Your task to perform on an android device: snooze an email in the gmail app Image 0: 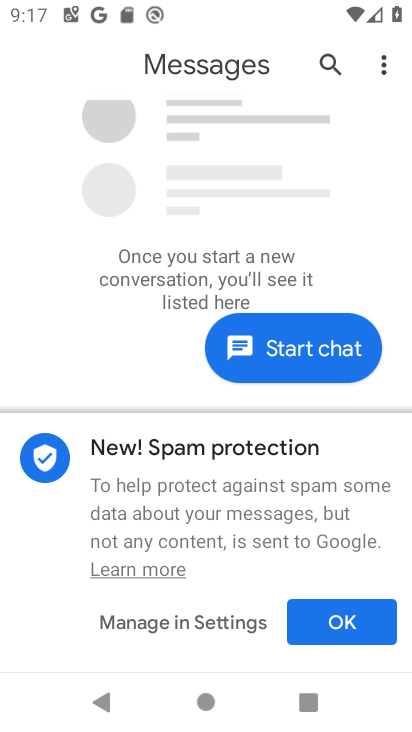
Step 0: press home button
Your task to perform on an android device: snooze an email in the gmail app Image 1: 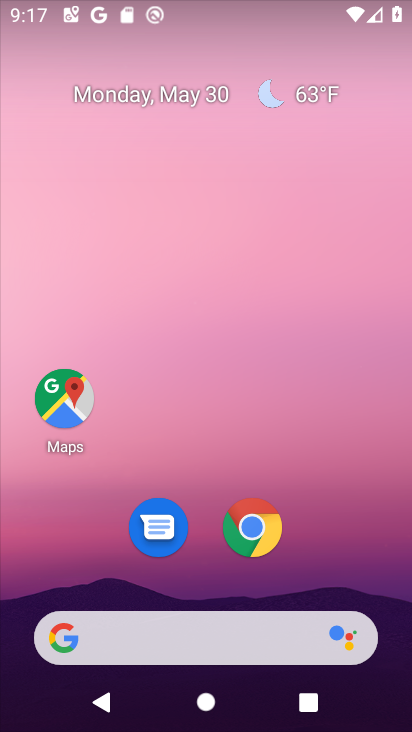
Step 1: drag from (292, 524) to (318, 241)
Your task to perform on an android device: snooze an email in the gmail app Image 2: 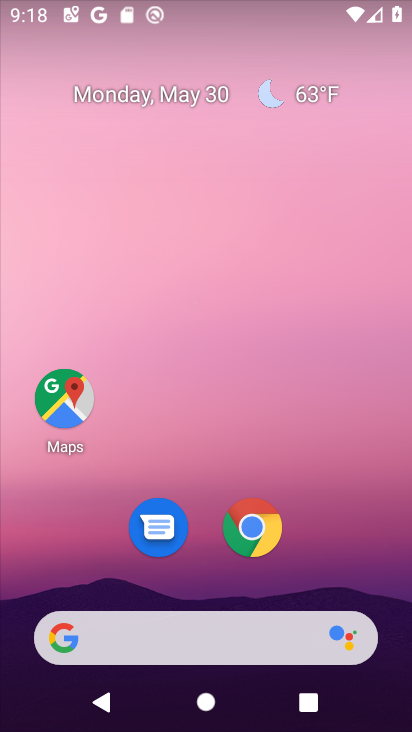
Step 2: drag from (285, 541) to (325, 261)
Your task to perform on an android device: snooze an email in the gmail app Image 3: 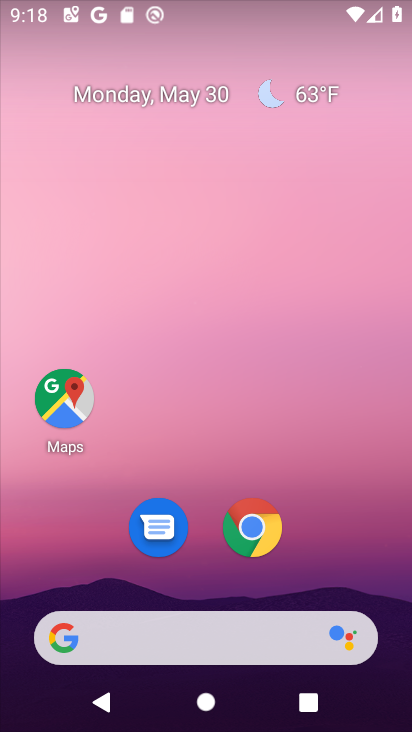
Step 3: drag from (285, 604) to (304, 284)
Your task to perform on an android device: snooze an email in the gmail app Image 4: 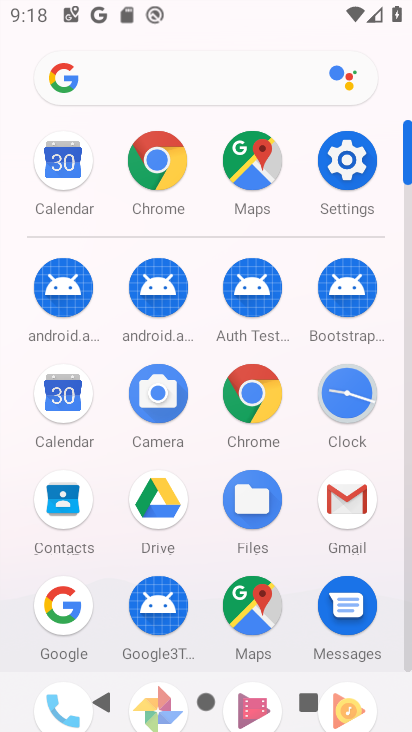
Step 4: click (332, 494)
Your task to perform on an android device: snooze an email in the gmail app Image 5: 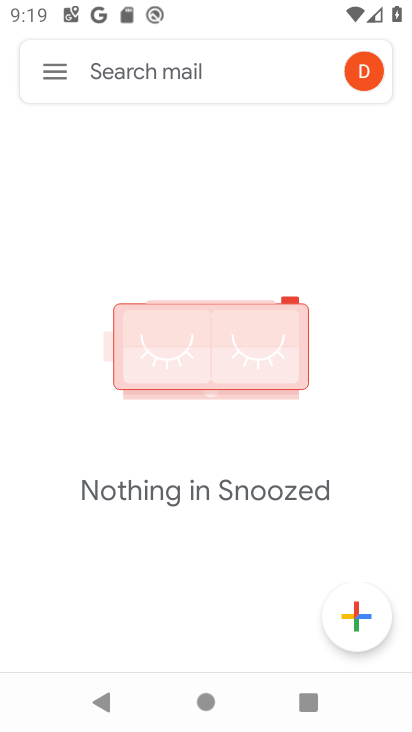
Step 5: task complete